Your task to perform on an android device: What's the weather? Image 0: 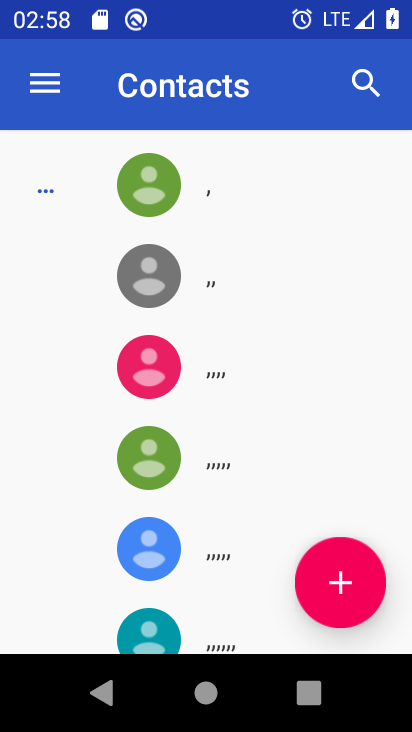
Step 0: press home button
Your task to perform on an android device: What's the weather? Image 1: 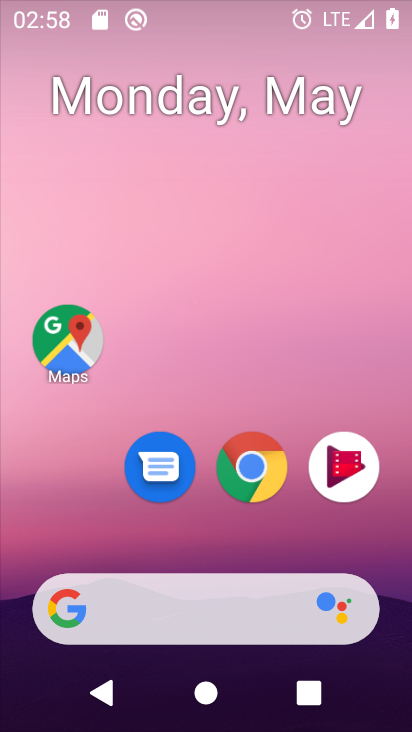
Step 1: drag from (201, 563) to (251, 236)
Your task to perform on an android device: What's the weather? Image 2: 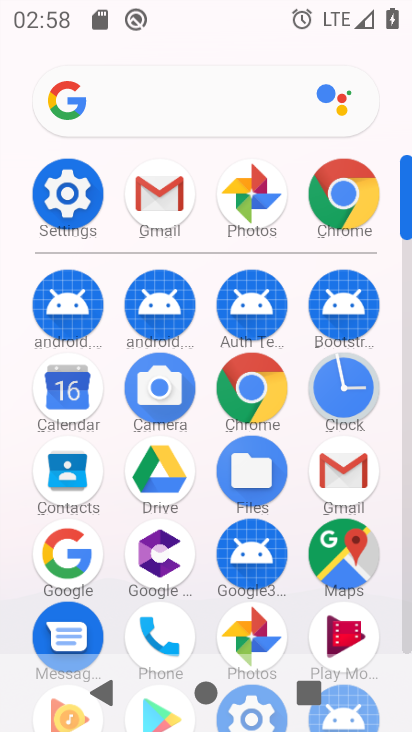
Step 2: click (346, 182)
Your task to perform on an android device: What's the weather? Image 3: 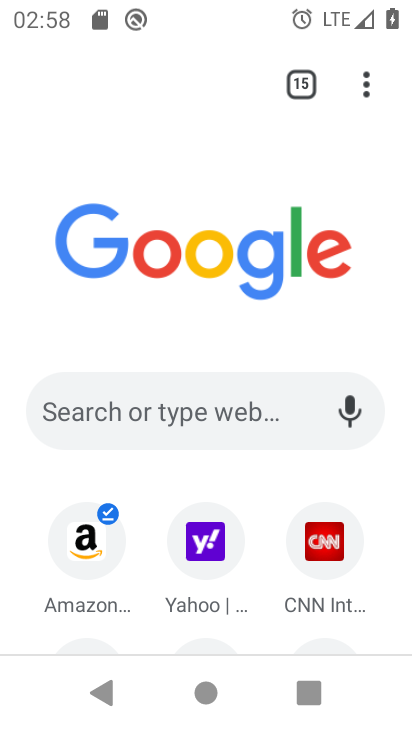
Step 3: click (159, 415)
Your task to perform on an android device: What's the weather? Image 4: 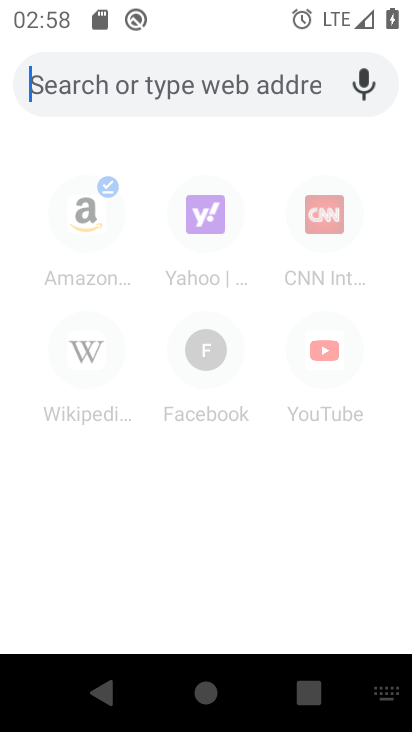
Step 4: click (157, 76)
Your task to perform on an android device: What's the weather? Image 5: 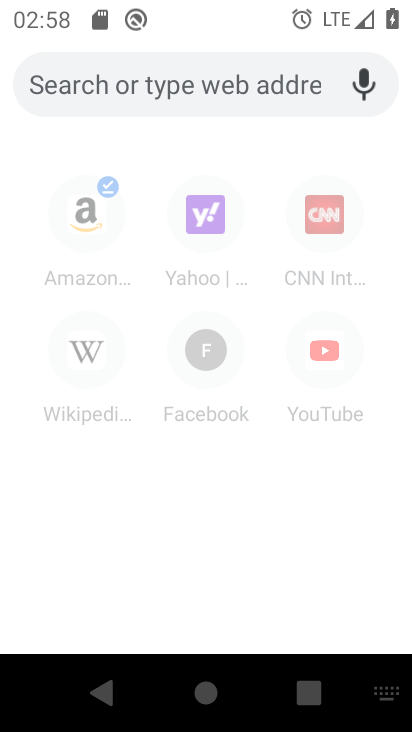
Step 5: type "What's the weather?"
Your task to perform on an android device: What's the weather? Image 6: 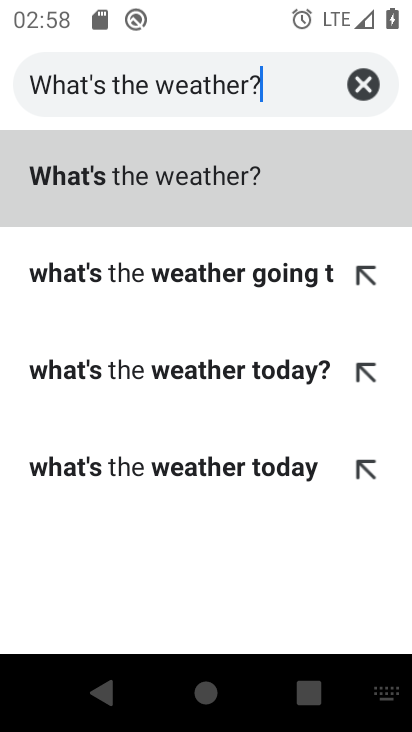
Step 6: click (220, 183)
Your task to perform on an android device: What's the weather? Image 7: 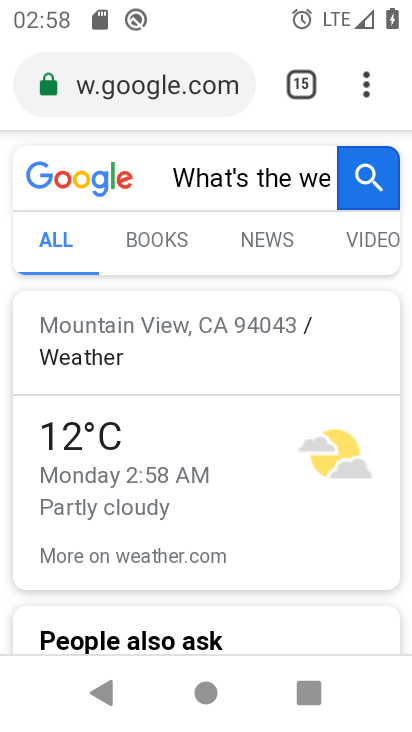
Step 7: task complete